Your task to perform on an android device: Go to wifi settings Image 0: 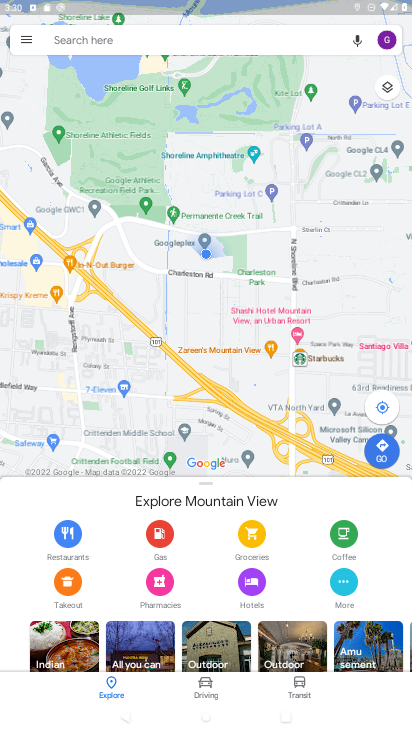
Step 0: drag from (136, 15) to (24, 484)
Your task to perform on an android device: Go to wifi settings Image 1: 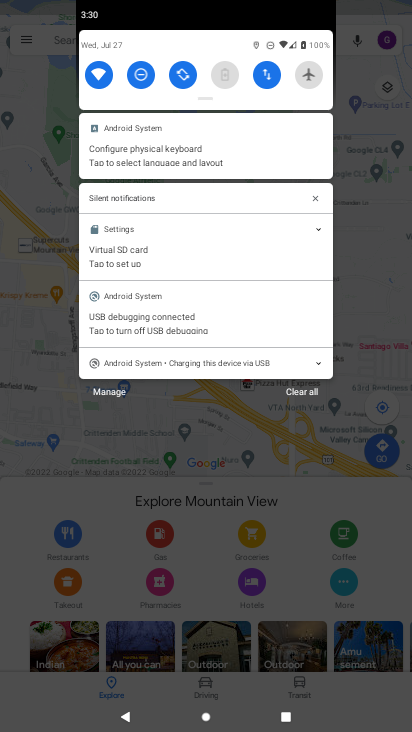
Step 1: click (101, 85)
Your task to perform on an android device: Go to wifi settings Image 2: 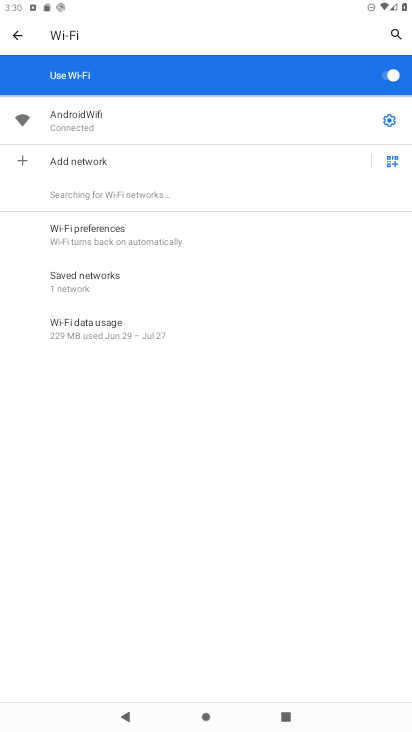
Step 2: task complete